Your task to perform on an android device: install app "Google Maps" Image 0: 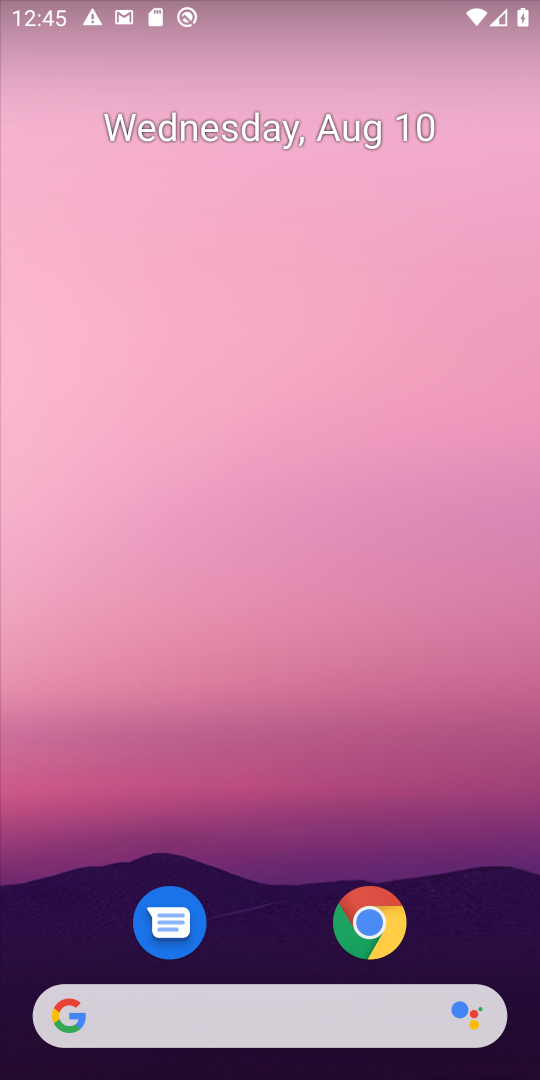
Step 0: drag from (270, 890) to (289, 295)
Your task to perform on an android device: install app "Google Maps" Image 1: 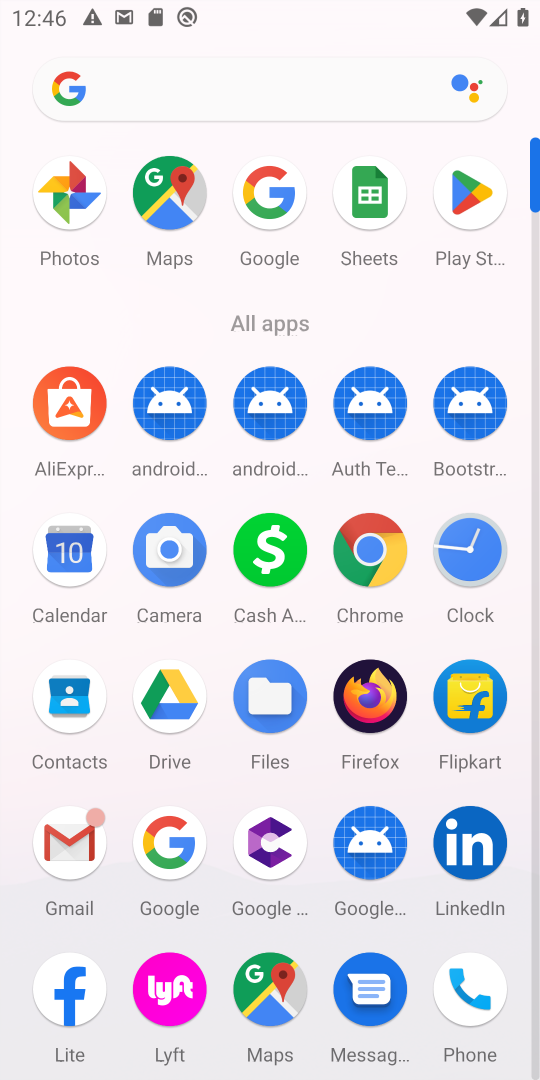
Step 1: click (465, 205)
Your task to perform on an android device: install app "Google Maps" Image 2: 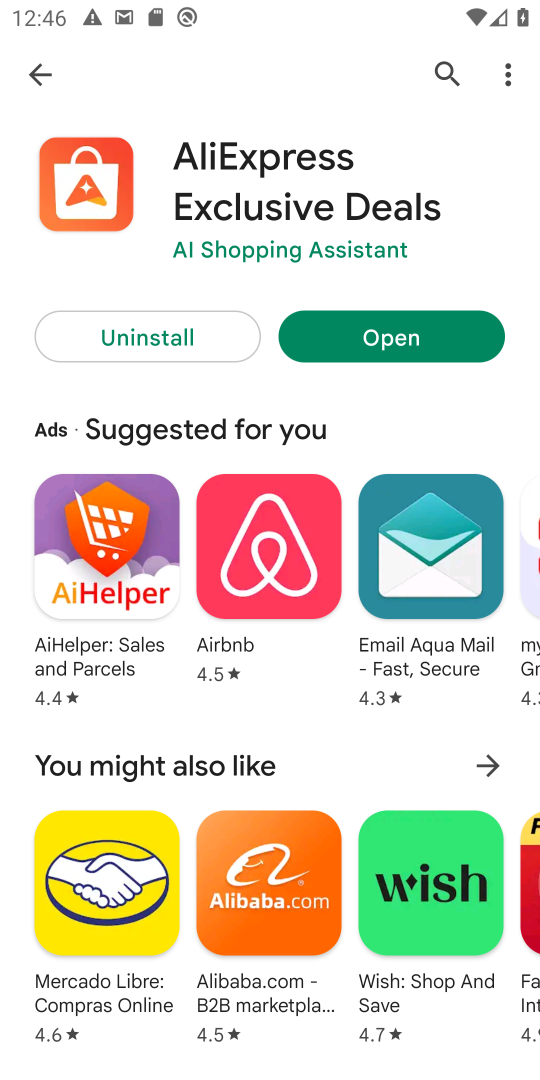
Step 2: click (30, 82)
Your task to perform on an android device: install app "Google Maps" Image 3: 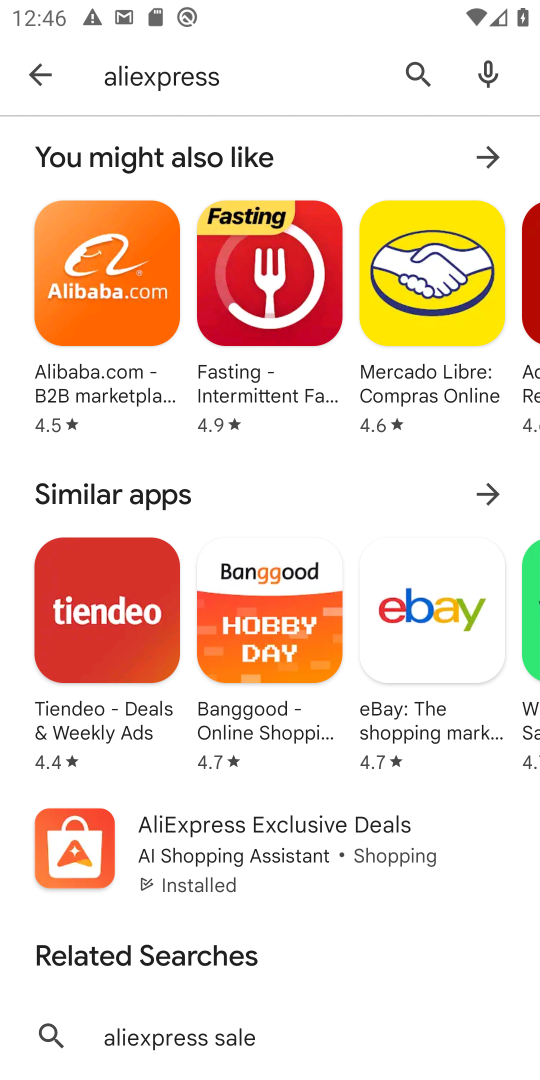
Step 3: click (44, 68)
Your task to perform on an android device: install app "Google Maps" Image 4: 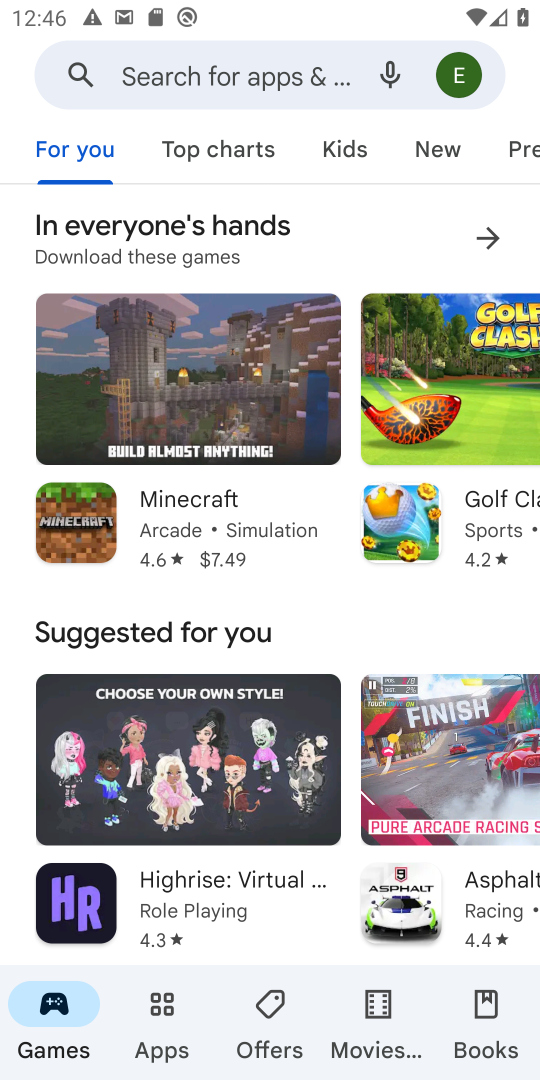
Step 4: click (184, 74)
Your task to perform on an android device: install app "Google Maps" Image 5: 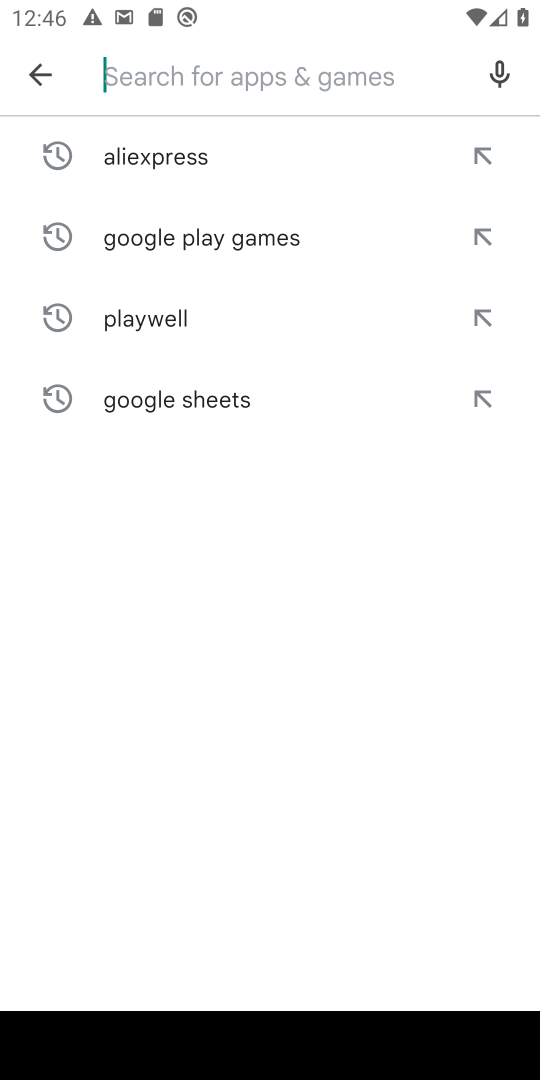
Step 5: type "Google Maps"
Your task to perform on an android device: install app "Google Maps" Image 6: 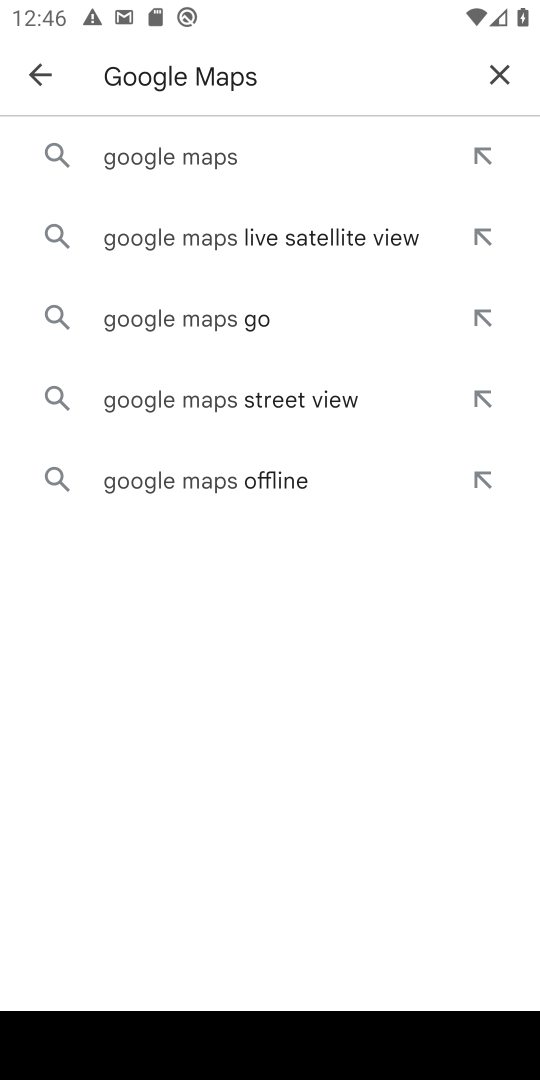
Step 6: click (173, 158)
Your task to perform on an android device: install app "Google Maps" Image 7: 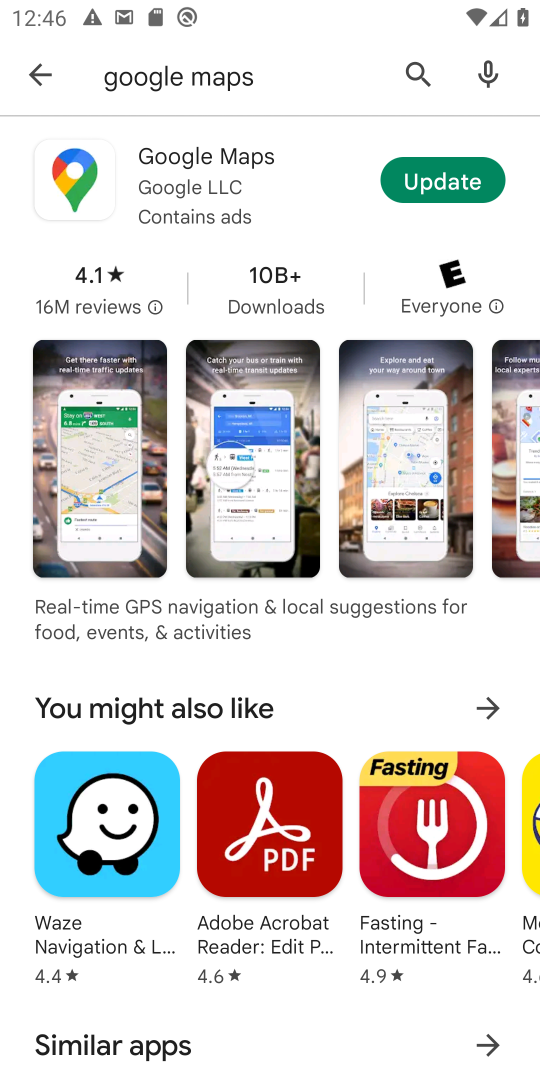
Step 7: click (434, 185)
Your task to perform on an android device: install app "Google Maps" Image 8: 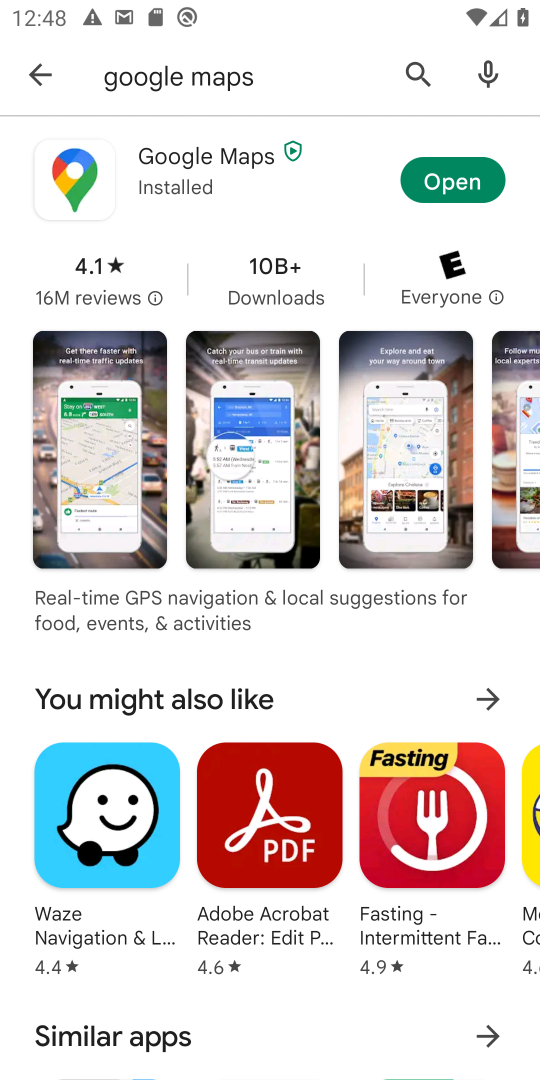
Step 8: click (446, 180)
Your task to perform on an android device: install app "Google Maps" Image 9: 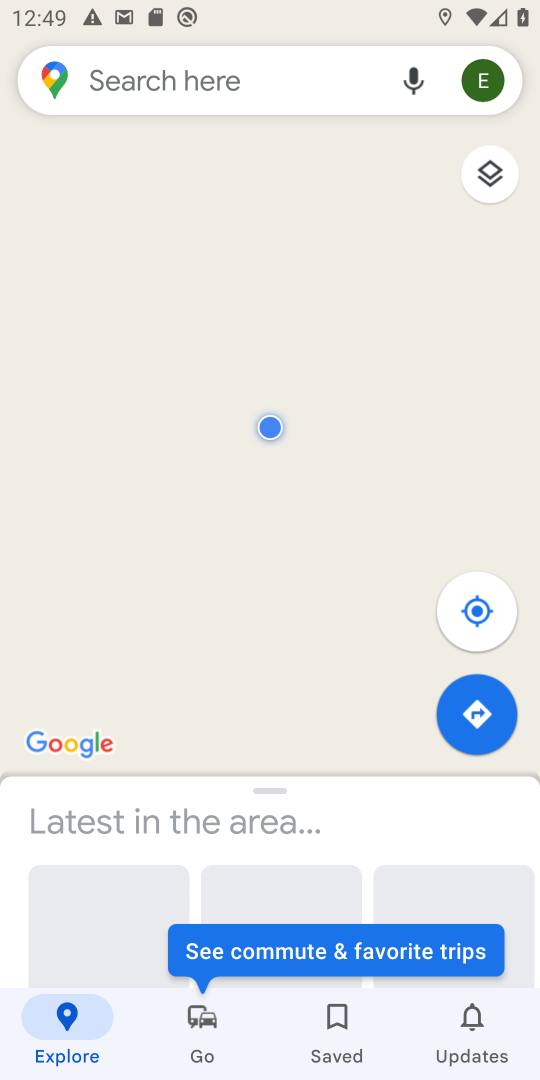
Step 9: task complete